Your task to perform on an android device: change the clock display to digital Image 0: 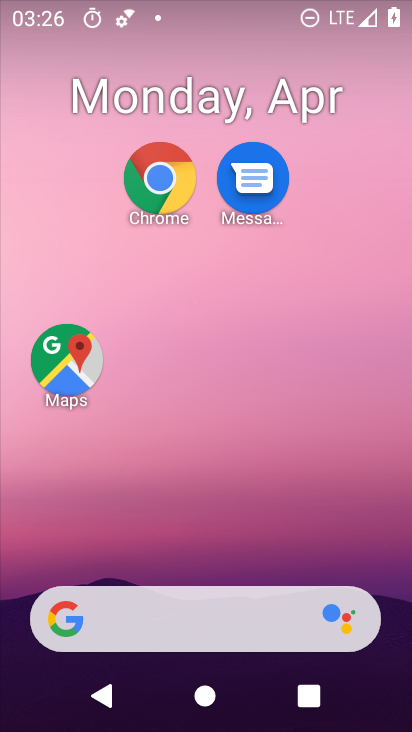
Step 0: drag from (272, 564) to (211, 0)
Your task to perform on an android device: change the clock display to digital Image 1: 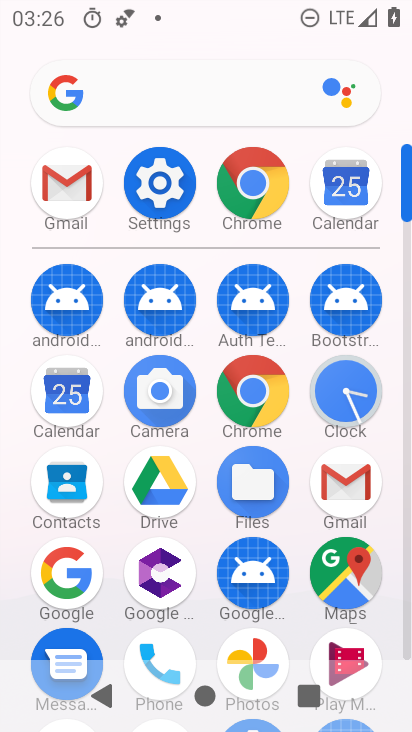
Step 1: click (356, 396)
Your task to perform on an android device: change the clock display to digital Image 2: 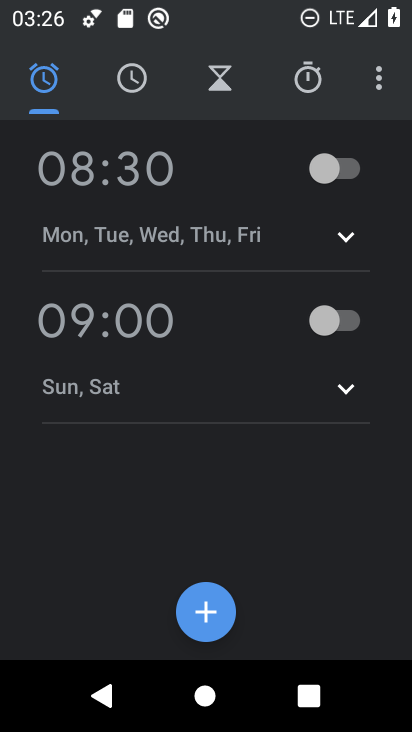
Step 2: click (377, 81)
Your task to perform on an android device: change the clock display to digital Image 3: 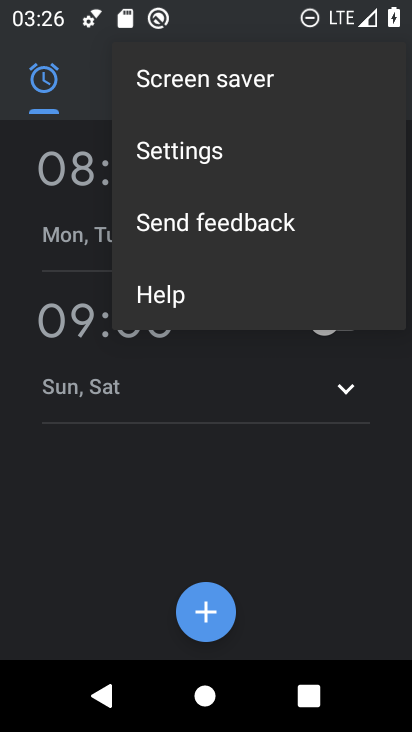
Step 3: click (248, 158)
Your task to perform on an android device: change the clock display to digital Image 4: 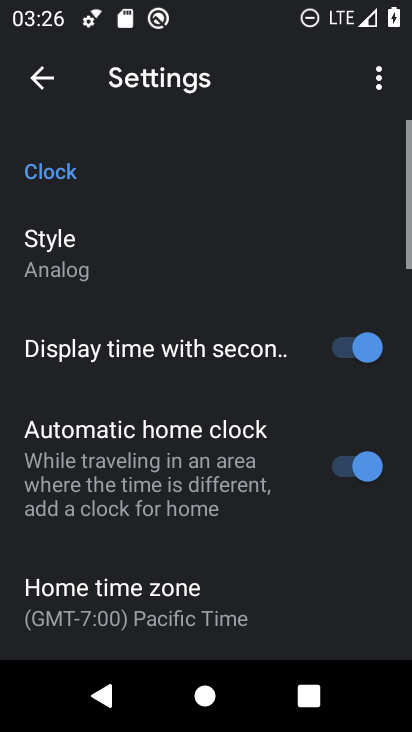
Step 4: click (74, 273)
Your task to perform on an android device: change the clock display to digital Image 5: 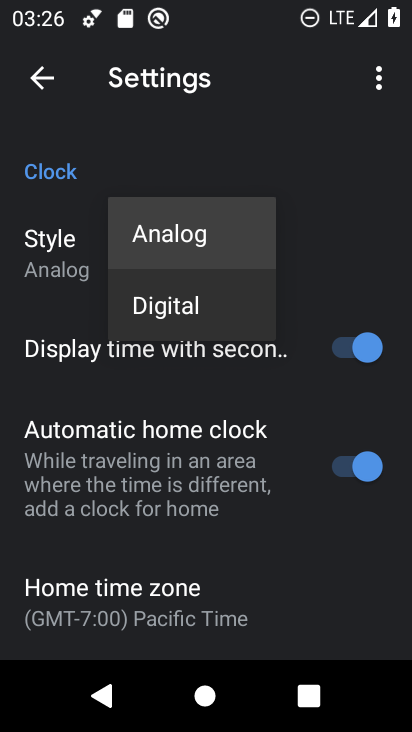
Step 5: click (184, 304)
Your task to perform on an android device: change the clock display to digital Image 6: 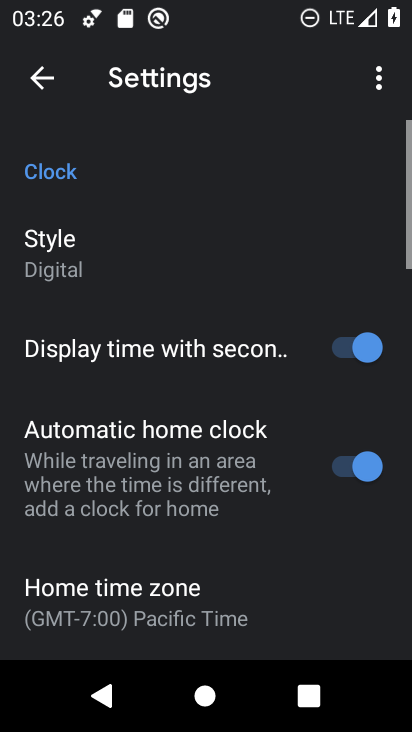
Step 6: task complete